Your task to perform on an android device: Search for Italian restaurants on Maps Image 0: 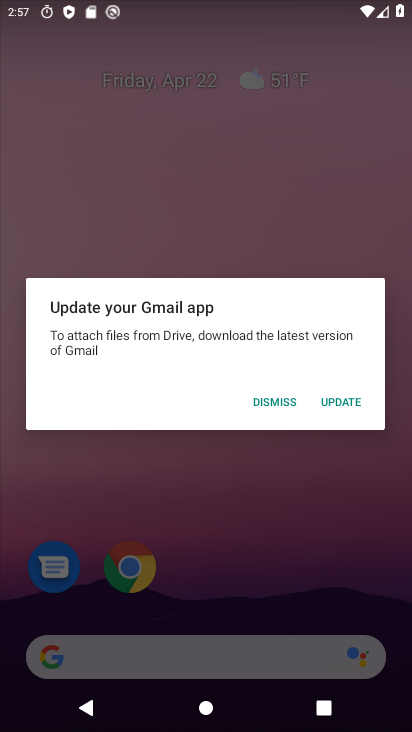
Step 0: press home button
Your task to perform on an android device: Search for Italian restaurants on Maps Image 1: 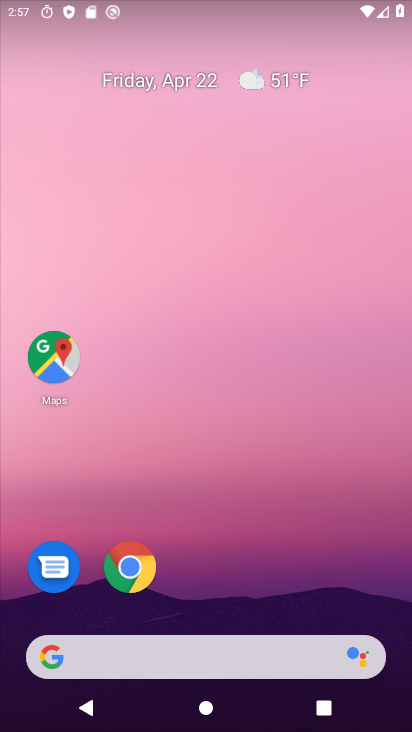
Step 1: click (59, 352)
Your task to perform on an android device: Search for Italian restaurants on Maps Image 2: 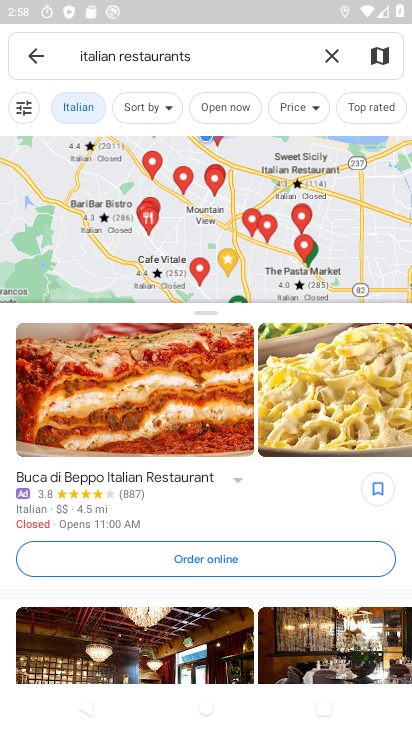
Step 2: task complete